Your task to perform on an android device: toggle location history Image 0: 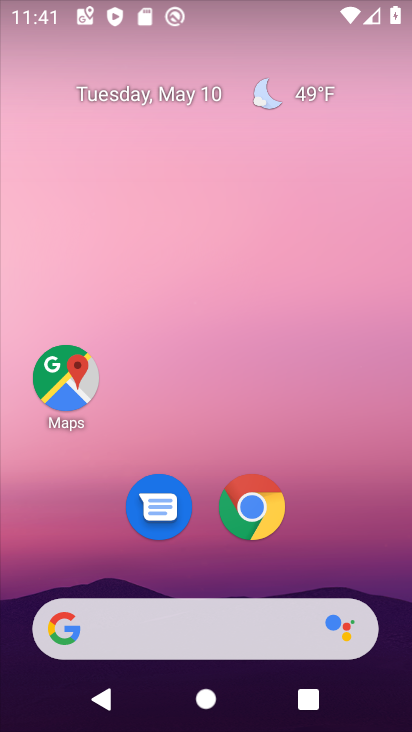
Step 0: drag from (217, 583) to (153, 60)
Your task to perform on an android device: toggle location history Image 1: 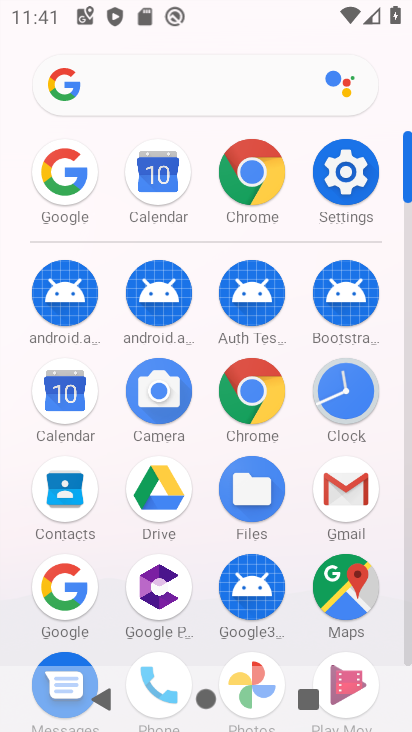
Step 1: click (347, 177)
Your task to perform on an android device: toggle location history Image 2: 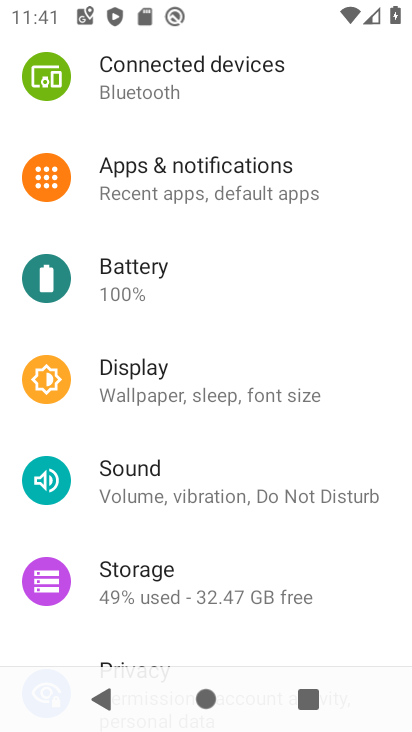
Step 2: drag from (250, 581) to (224, 110)
Your task to perform on an android device: toggle location history Image 3: 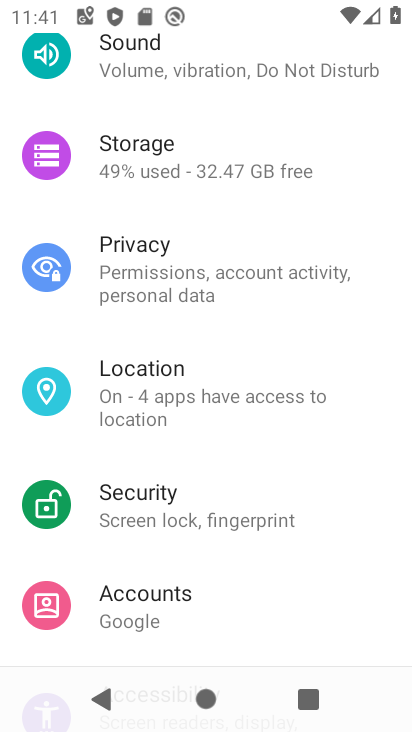
Step 3: drag from (229, 250) to (259, 190)
Your task to perform on an android device: toggle location history Image 4: 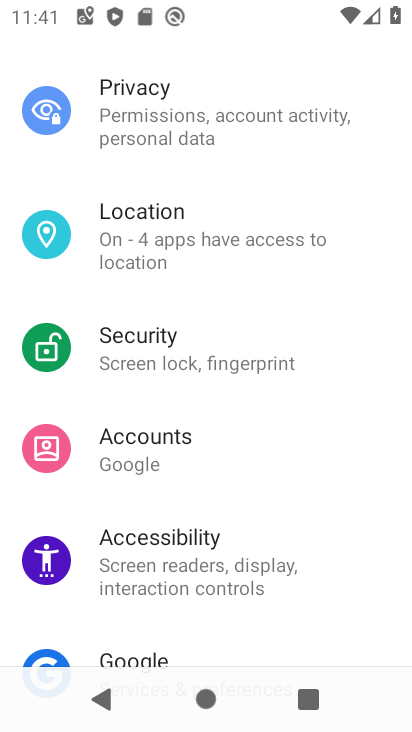
Step 4: click (201, 229)
Your task to perform on an android device: toggle location history Image 5: 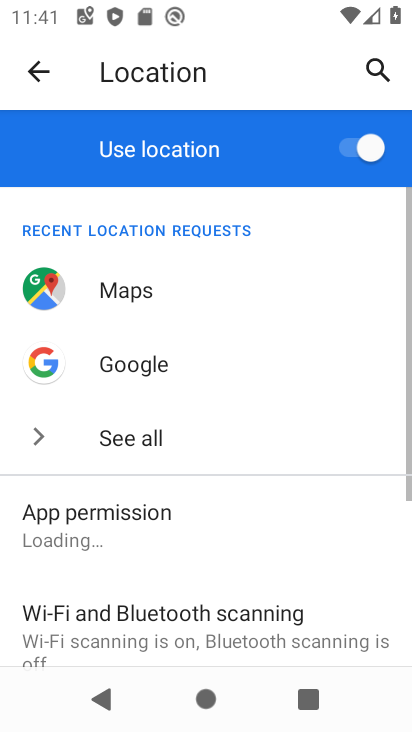
Step 5: drag from (249, 603) to (293, 136)
Your task to perform on an android device: toggle location history Image 6: 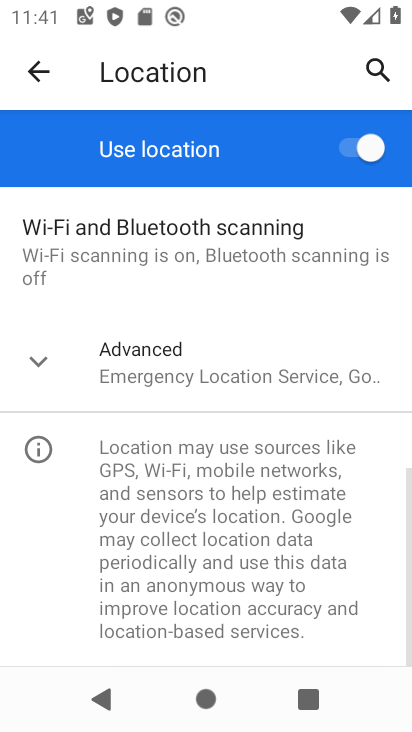
Step 6: click (149, 355)
Your task to perform on an android device: toggle location history Image 7: 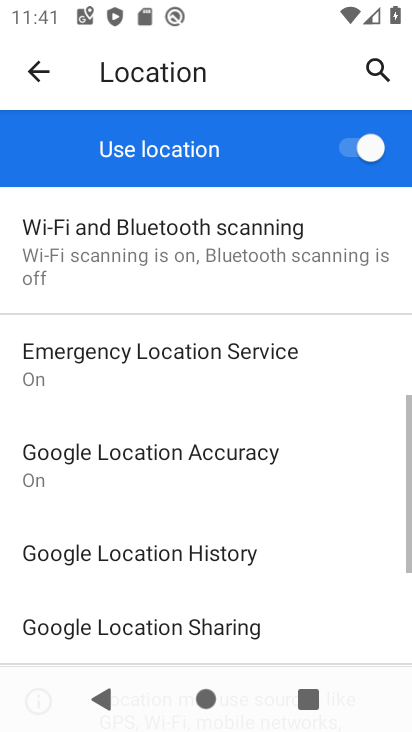
Step 7: drag from (260, 526) to (259, 328)
Your task to perform on an android device: toggle location history Image 8: 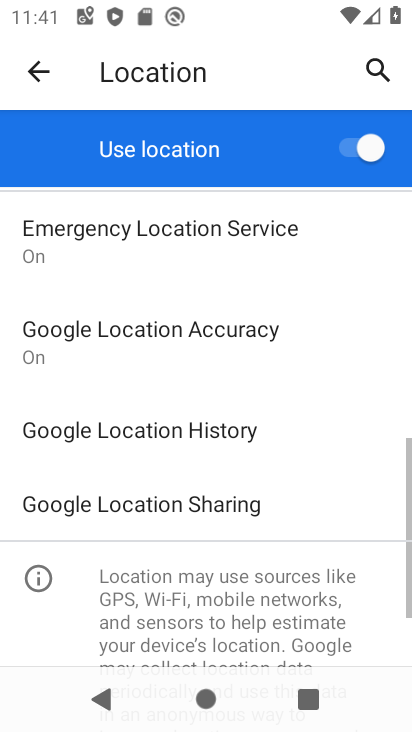
Step 8: click (108, 410)
Your task to perform on an android device: toggle location history Image 9: 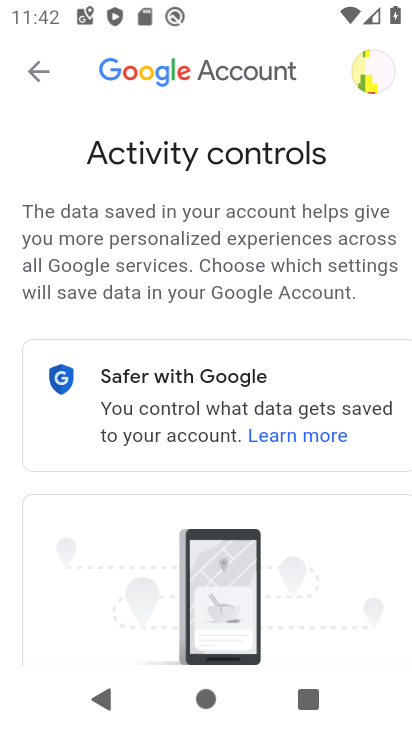
Step 9: drag from (299, 548) to (270, 101)
Your task to perform on an android device: toggle location history Image 10: 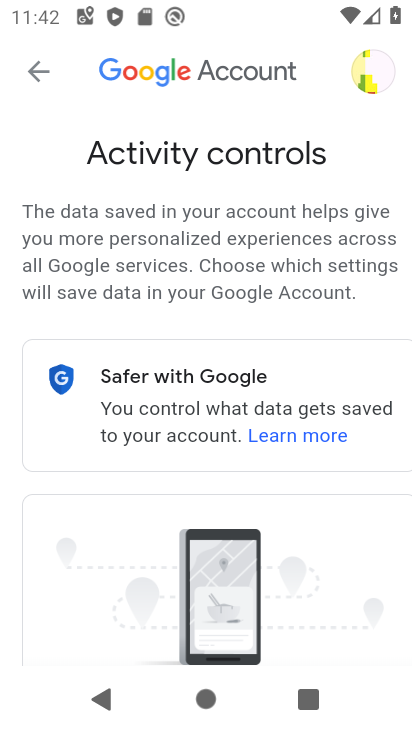
Step 10: drag from (317, 564) to (340, 47)
Your task to perform on an android device: toggle location history Image 11: 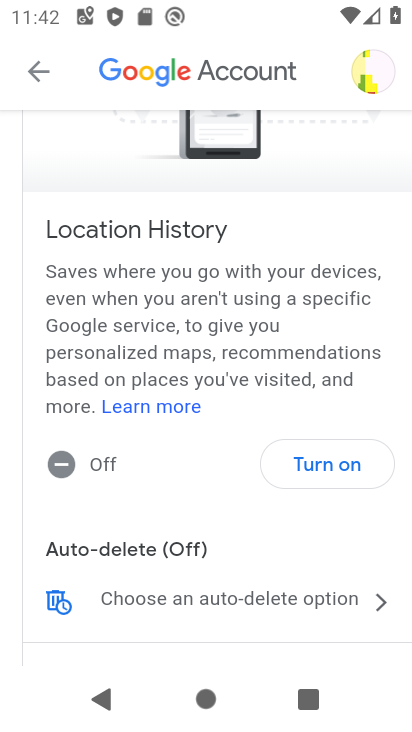
Step 11: click (315, 465)
Your task to perform on an android device: toggle location history Image 12: 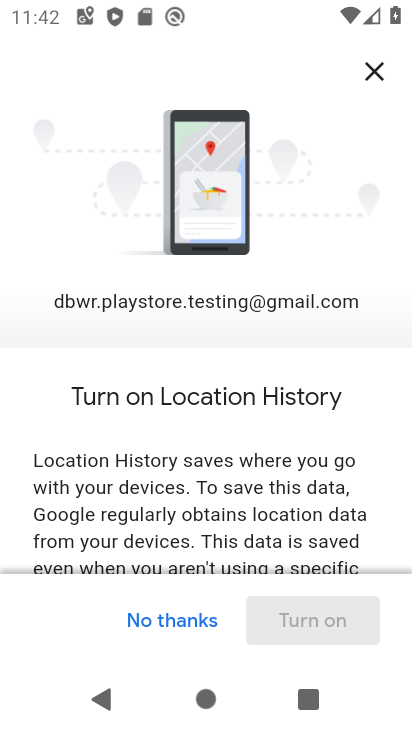
Step 12: drag from (314, 506) to (355, 70)
Your task to perform on an android device: toggle location history Image 13: 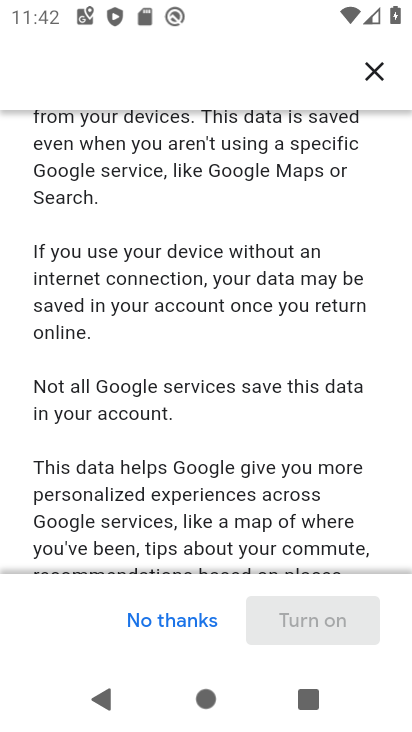
Step 13: drag from (313, 509) to (359, 81)
Your task to perform on an android device: toggle location history Image 14: 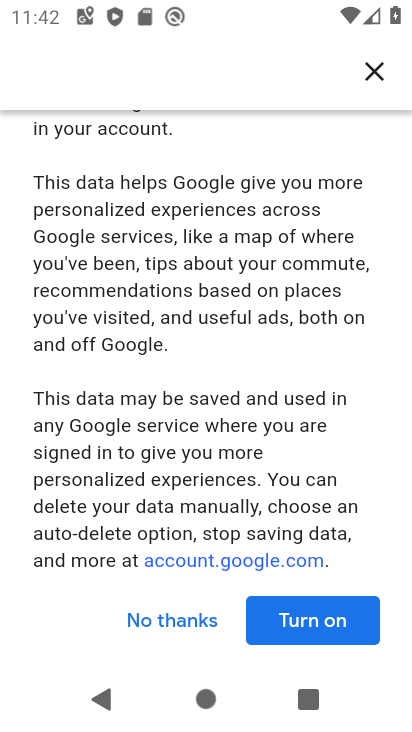
Step 14: click (306, 618)
Your task to perform on an android device: toggle location history Image 15: 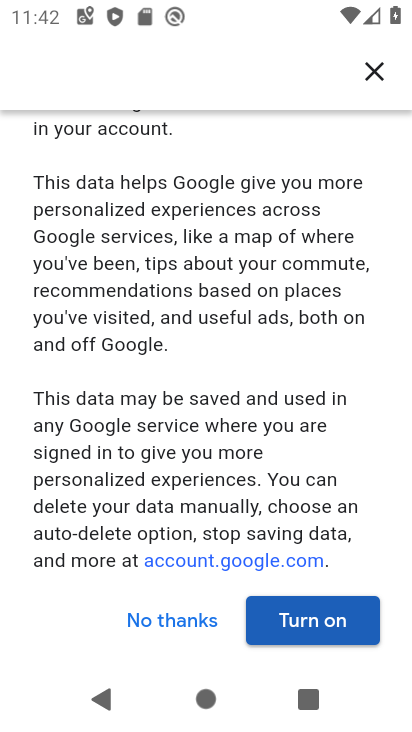
Step 15: click (298, 634)
Your task to perform on an android device: toggle location history Image 16: 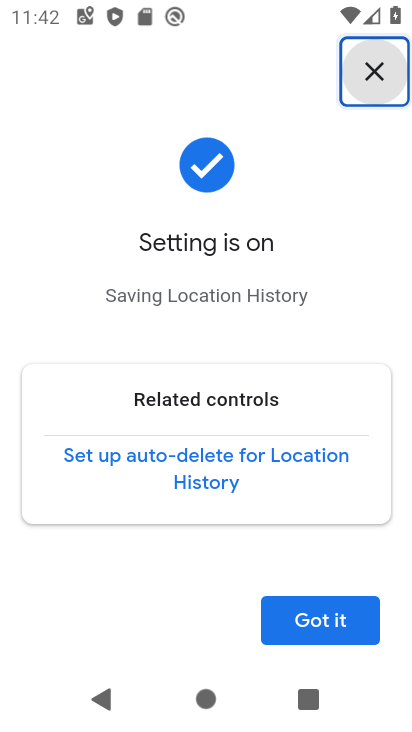
Step 16: click (301, 628)
Your task to perform on an android device: toggle location history Image 17: 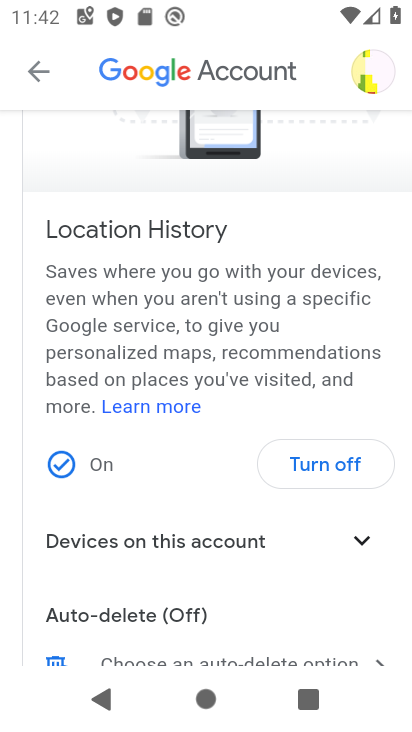
Step 17: task complete